Your task to perform on an android device: Search for pizza restaurants on Maps Image 0: 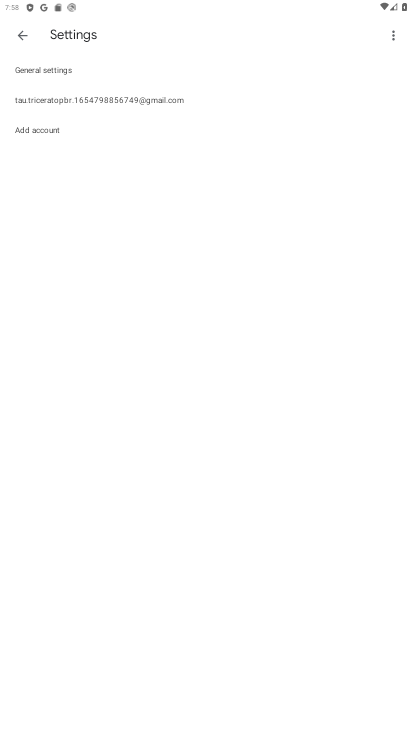
Step 0: press home button
Your task to perform on an android device: Search for pizza restaurants on Maps Image 1: 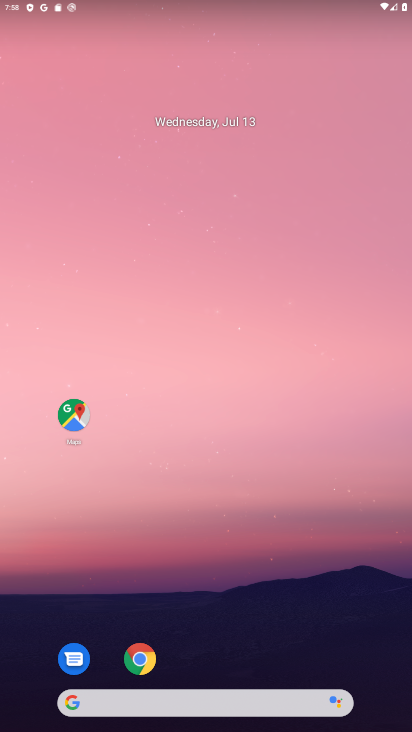
Step 1: click (70, 410)
Your task to perform on an android device: Search for pizza restaurants on Maps Image 2: 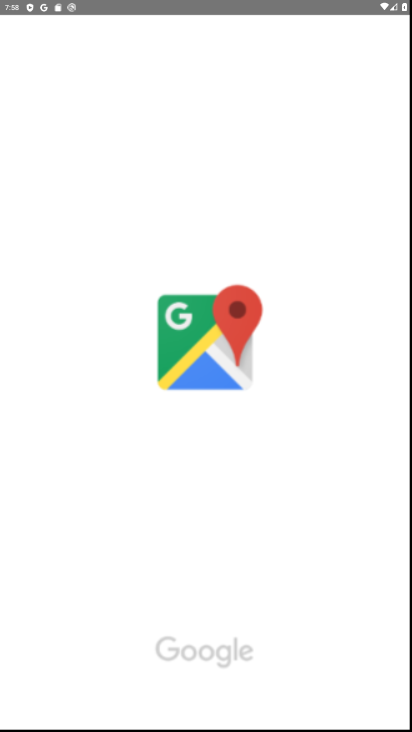
Step 2: task complete